Your task to perform on an android device: turn vacation reply on in the gmail app Image 0: 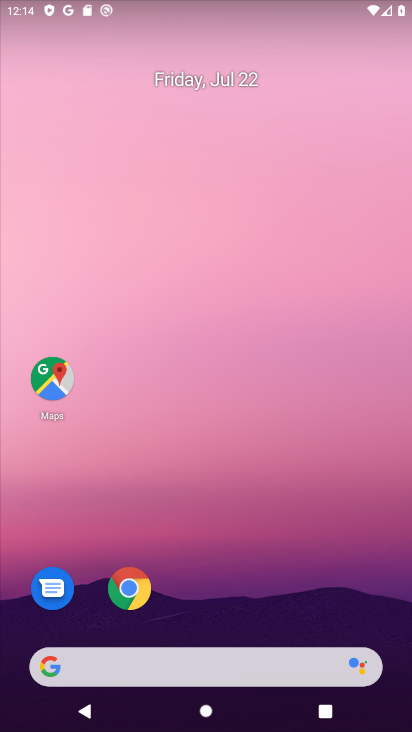
Step 0: drag from (257, 617) to (230, 170)
Your task to perform on an android device: turn vacation reply on in the gmail app Image 1: 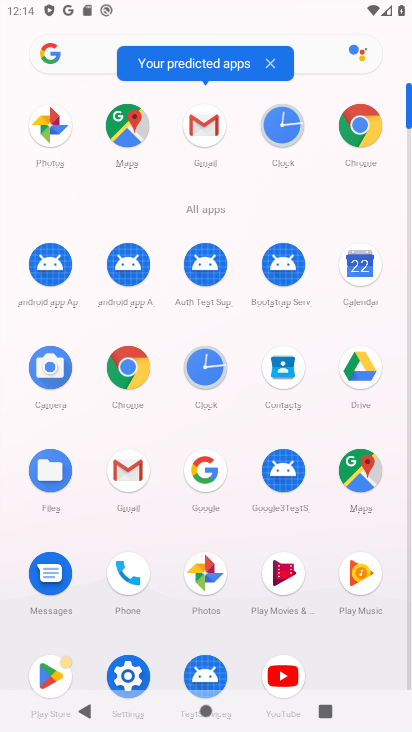
Step 1: click (206, 148)
Your task to perform on an android device: turn vacation reply on in the gmail app Image 2: 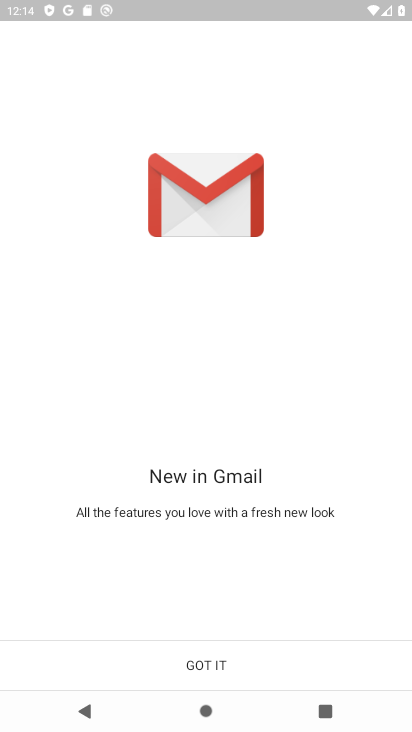
Step 2: click (268, 662)
Your task to perform on an android device: turn vacation reply on in the gmail app Image 3: 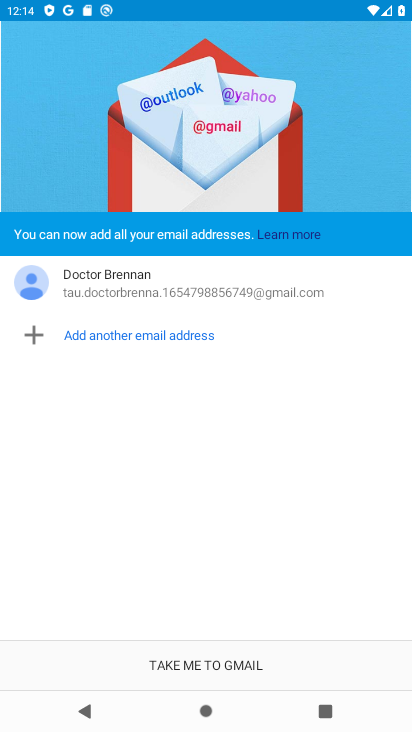
Step 3: click (268, 662)
Your task to perform on an android device: turn vacation reply on in the gmail app Image 4: 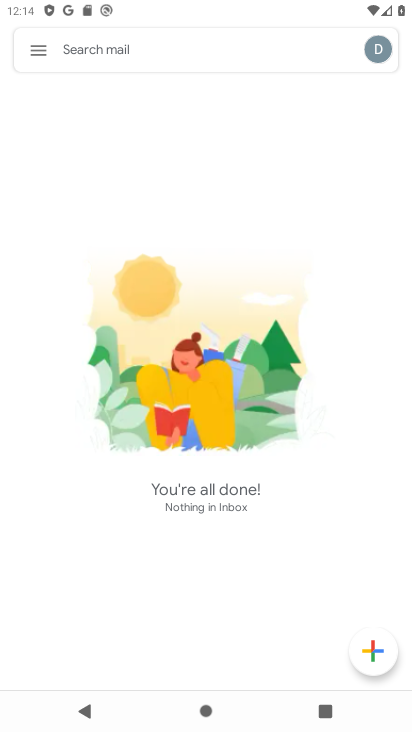
Step 4: click (32, 59)
Your task to perform on an android device: turn vacation reply on in the gmail app Image 5: 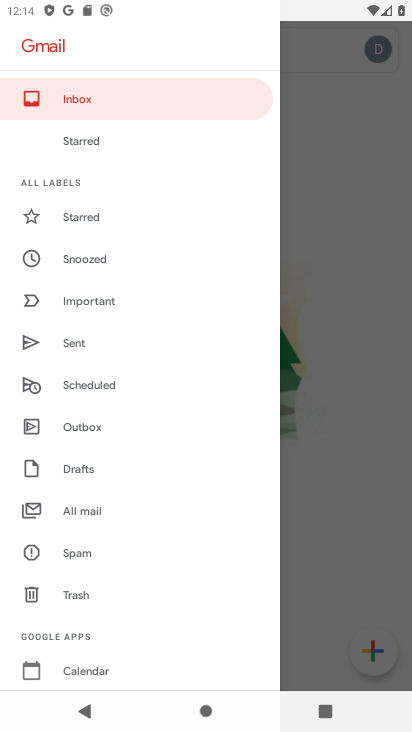
Step 5: drag from (178, 627) to (150, 301)
Your task to perform on an android device: turn vacation reply on in the gmail app Image 6: 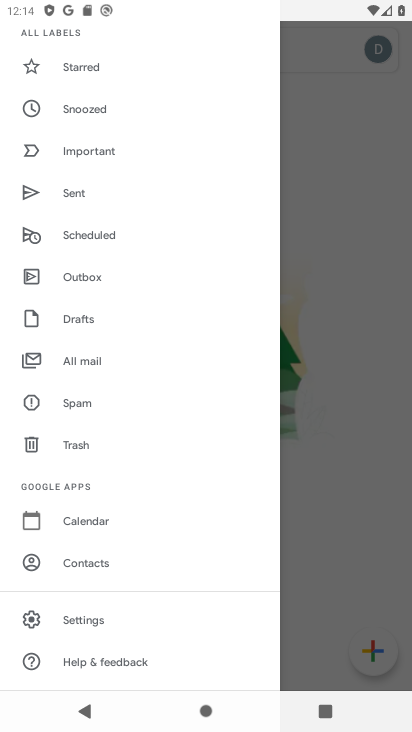
Step 6: click (124, 620)
Your task to perform on an android device: turn vacation reply on in the gmail app Image 7: 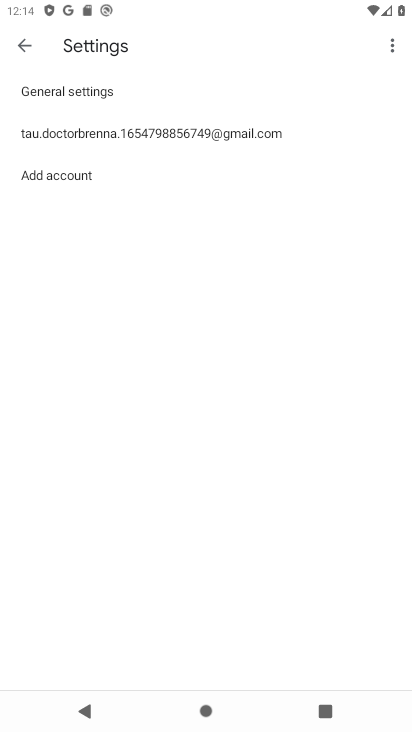
Step 7: click (188, 143)
Your task to perform on an android device: turn vacation reply on in the gmail app Image 8: 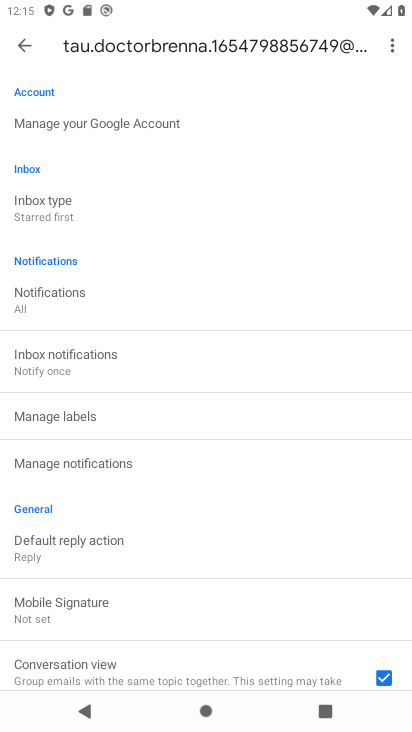
Step 8: drag from (195, 582) to (186, 284)
Your task to perform on an android device: turn vacation reply on in the gmail app Image 9: 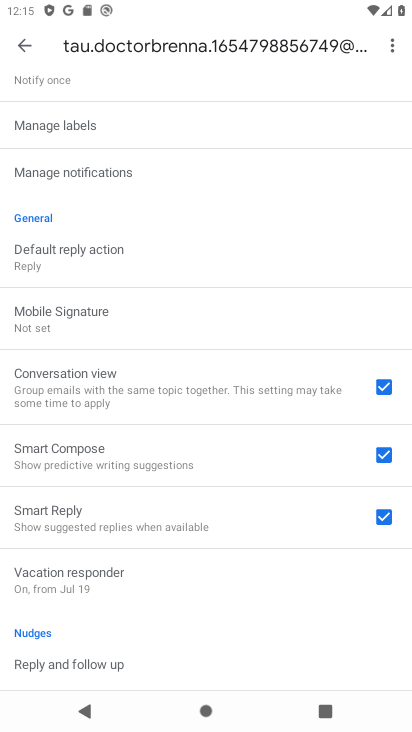
Step 9: click (167, 640)
Your task to perform on an android device: turn vacation reply on in the gmail app Image 10: 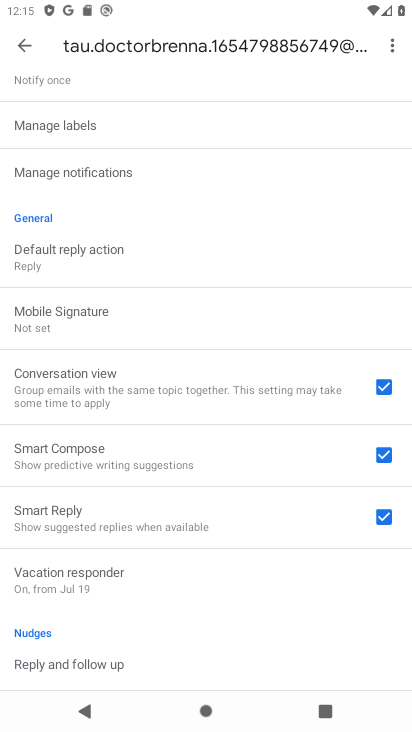
Step 10: click (133, 579)
Your task to perform on an android device: turn vacation reply on in the gmail app Image 11: 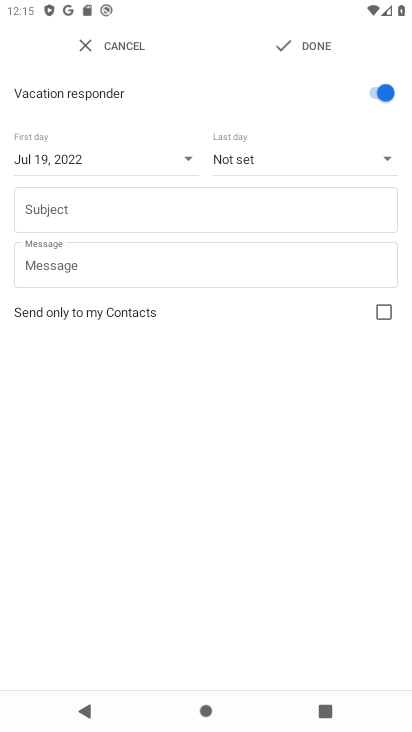
Step 11: click (168, 216)
Your task to perform on an android device: turn vacation reply on in the gmail app Image 12: 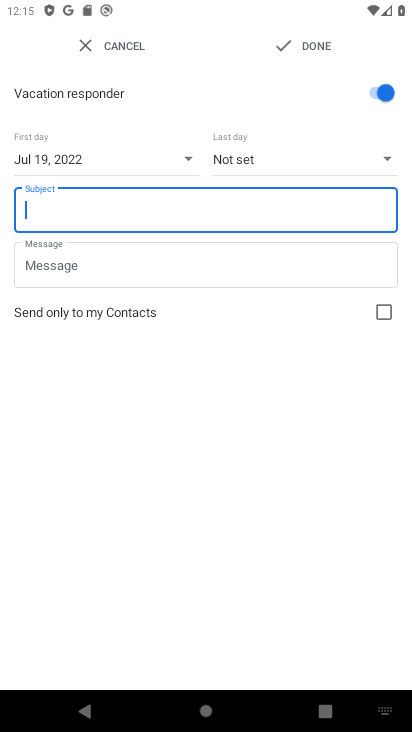
Step 12: type "bhhbhi"
Your task to perform on an android device: turn vacation reply on in the gmail app Image 13: 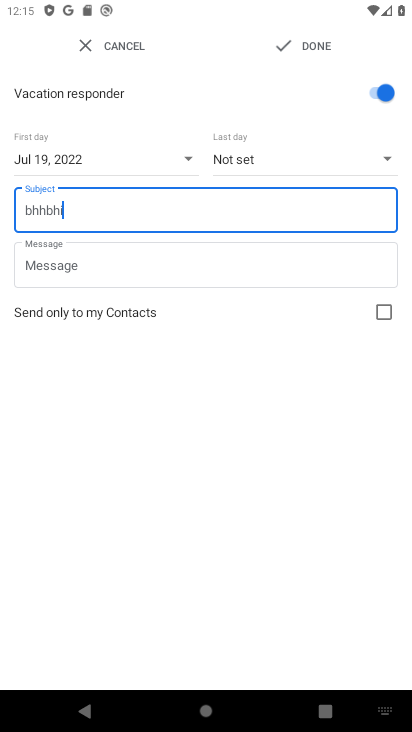
Step 13: click (238, 259)
Your task to perform on an android device: turn vacation reply on in the gmail app Image 14: 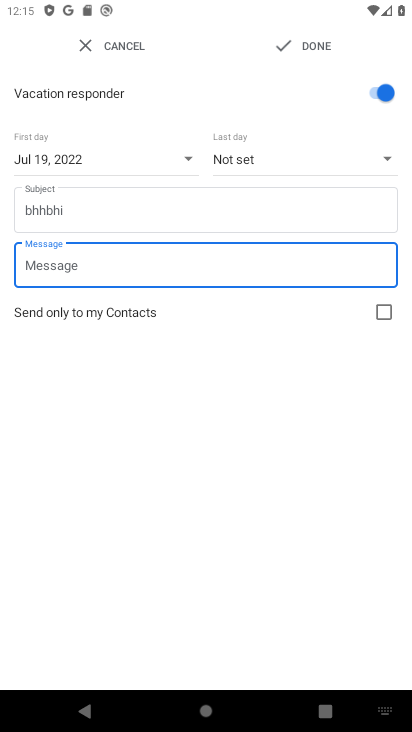
Step 14: click (318, 51)
Your task to perform on an android device: turn vacation reply on in the gmail app Image 15: 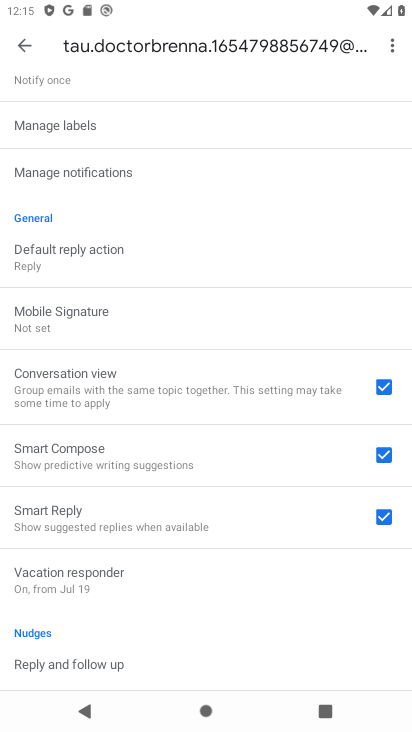
Step 15: task complete